Your task to perform on an android device: What time is it in New York? Image 0: 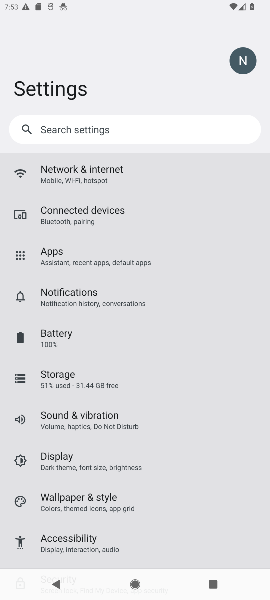
Step 0: press home button
Your task to perform on an android device: What time is it in New York? Image 1: 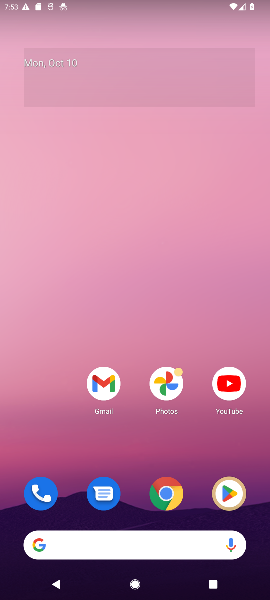
Step 1: drag from (118, 508) to (153, 287)
Your task to perform on an android device: What time is it in New York? Image 2: 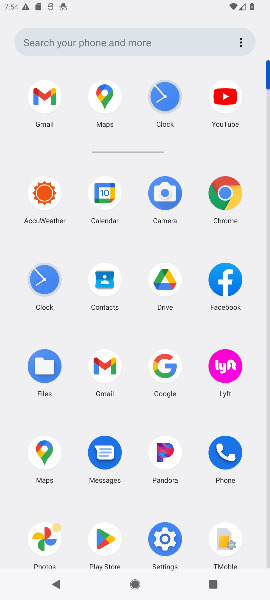
Step 2: click (162, 388)
Your task to perform on an android device: What time is it in New York? Image 3: 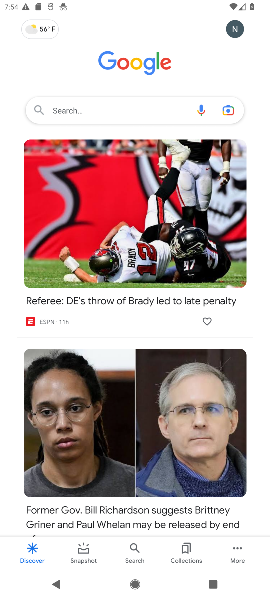
Step 3: click (134, 108)
Your task to perform on an android device: What time is it in New York? Image 4: 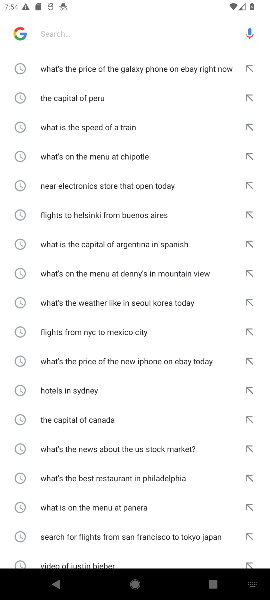
Step 4: type "What time is it in New York?"
Your task to perform on an android device: What time is it in New York? Image 5: 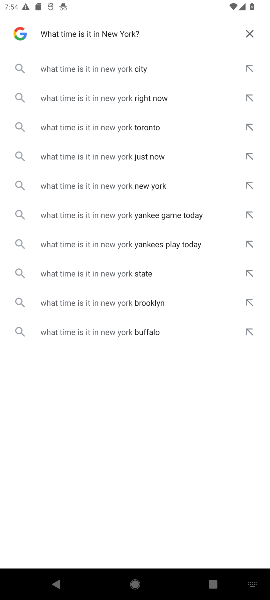
Step 5: click (147, 66)
Your task to perform on an android device: What time is it in New York? Image 6: 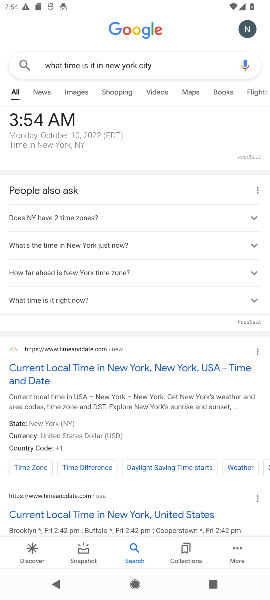
Step 6: task complete